Your task to perform on an android device: Open the web browser Image 0: 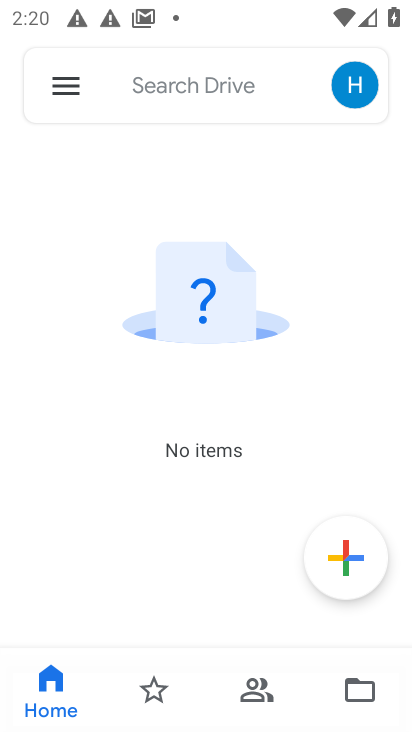
Step 0: press home button
Your task to perform on an android device: Open the web browser Image 1: 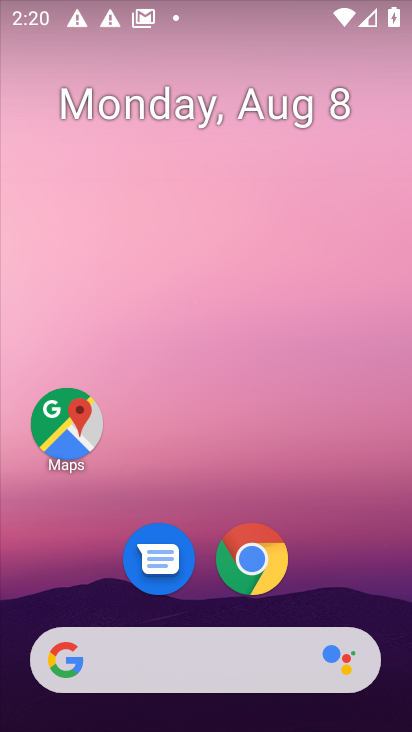
Step 1: click (249, 560)
Your task to perform on an android device: Open the web browser Image 2: 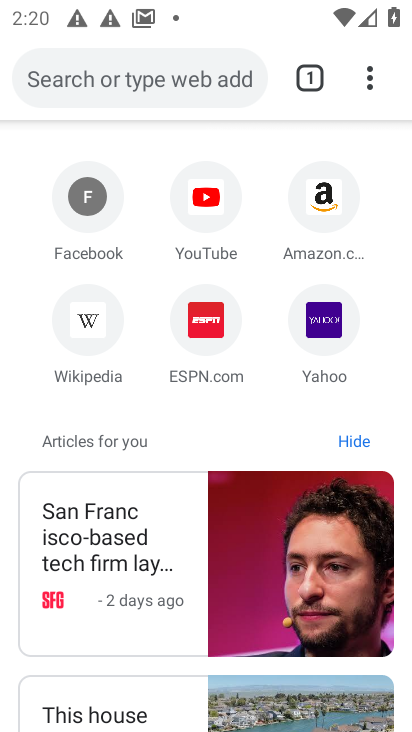
Step 2: task complete